Your task to perform on an android device: Open accessibility settings Image 0: 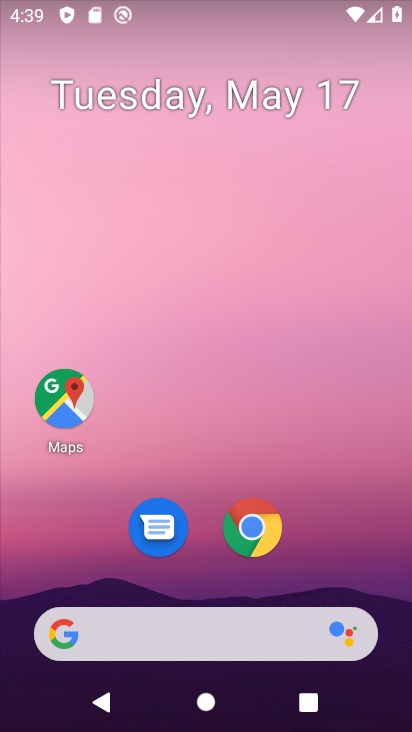
Step 0: drag from (305, 524) to (228, 9)
Your task to perform on an android device: Open accessibility settings Image 1: 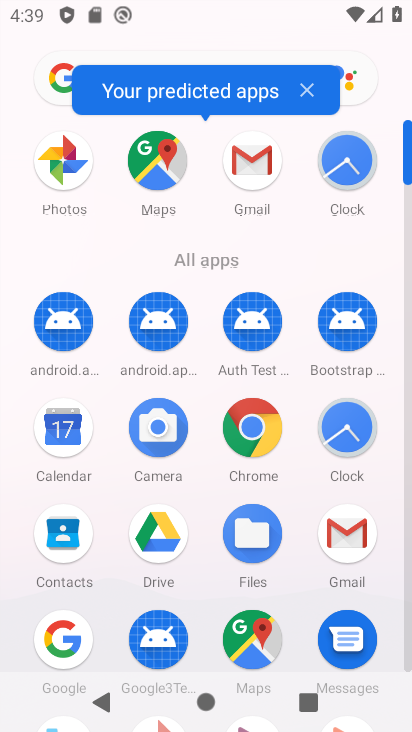
Step 1: drag from (16, 620) to (18, 243)
Your task to perform on an android device: Open accessibility settings Image 2: 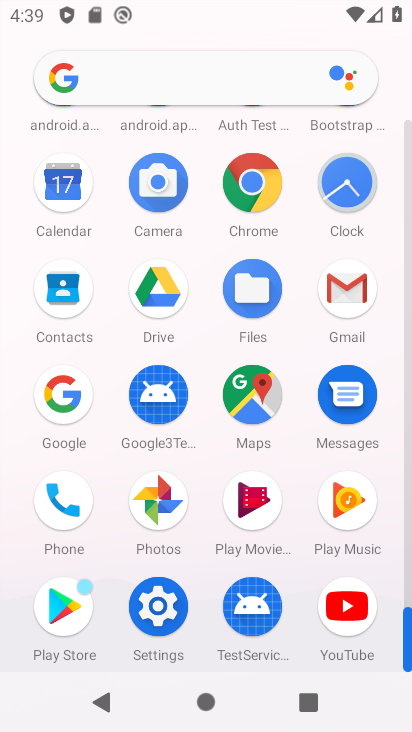
Step 2: click (155, 599)
Your task to perform on an android device: Open accessibility settings Image 3: 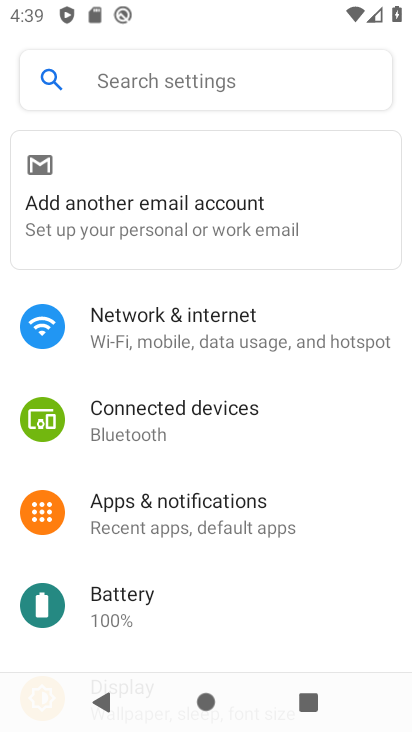
Step 3: drag from (266, 395) to (277, 90)
Your task to perform on an android device: Open accessibility settings Image 4: 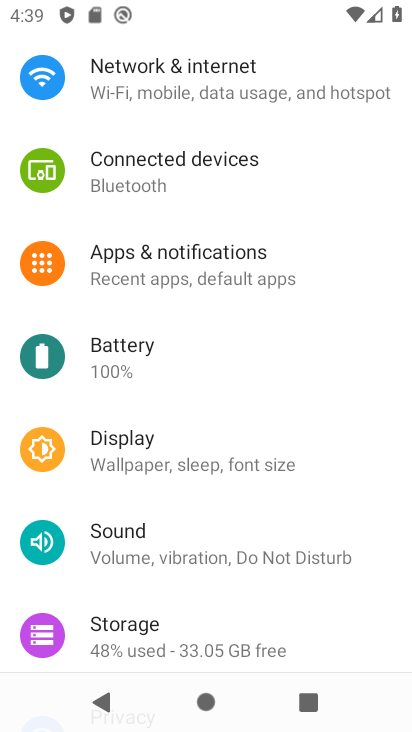
Step 4: drag from (254, 523) to (260, 105)
Your task to perform on an android device: Open accessibility settings Image 5: 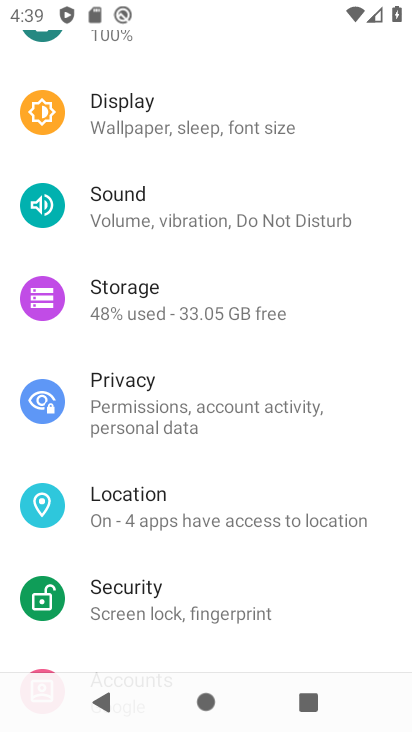
Step 5: drag from (236, 549) to (251, 116)
Your task to perform on an android device: Open accessibility settings Image 6: 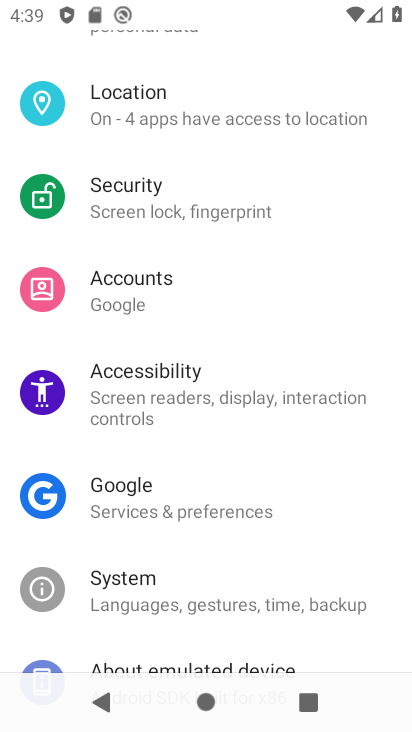
Step 6: click (182, 398)
Your task to perform on an android device: Open accessibility settings Image 7: 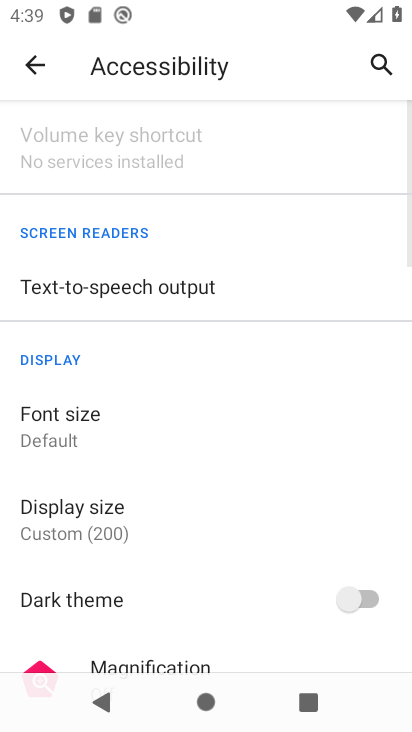
Step 7: task complete